Your task to perform on an android device: Open Android settings Image 0: 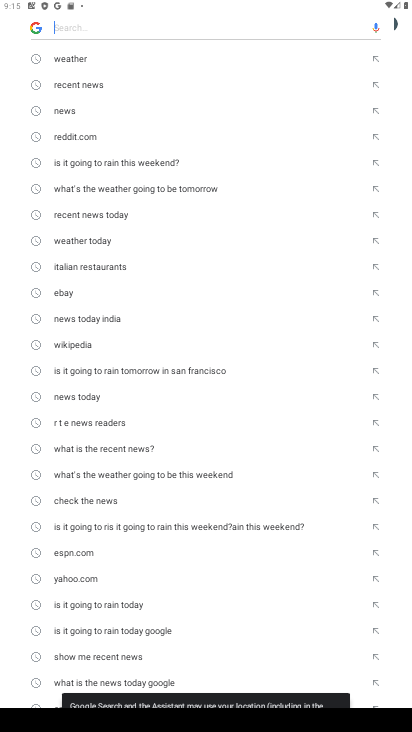
Step 0: press home button
Your task to perform on an android device: Open Android settings Image 1: 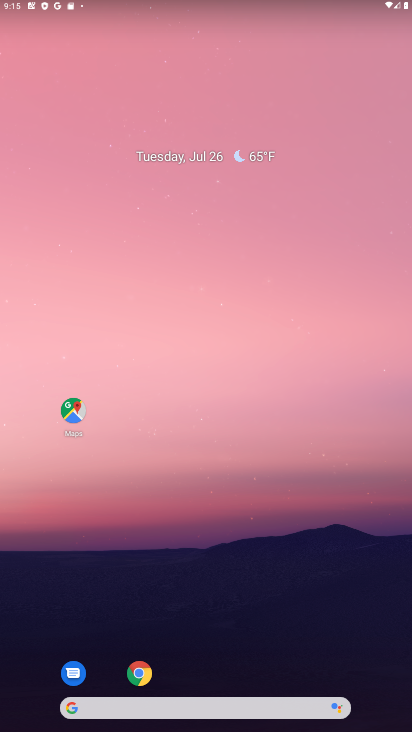
Step 1: drag from (384, 688) to (352, 159)
Your task to perform on an android device: Open Android settings Image 2: 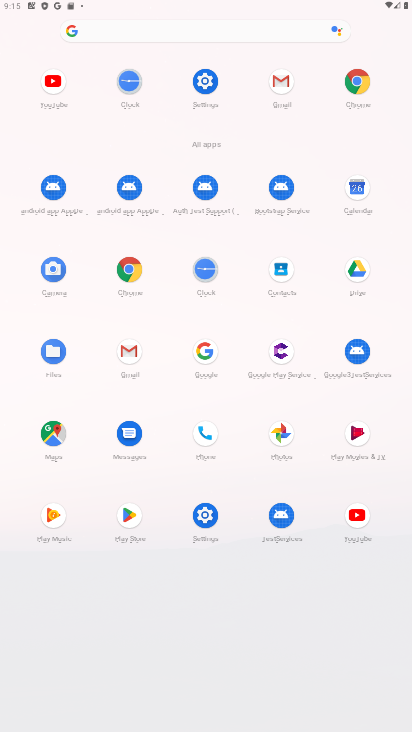
Step 2: click (203, 515)
Your task to perform on an android device: Open Android settings Image 3: 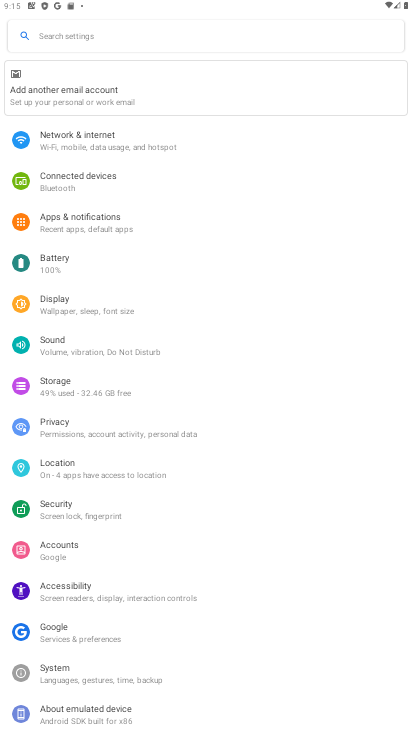
Step 3: drag from (254, 675) to (263, 401)
Your task to perform on an android device: Open Android settings Image 4: 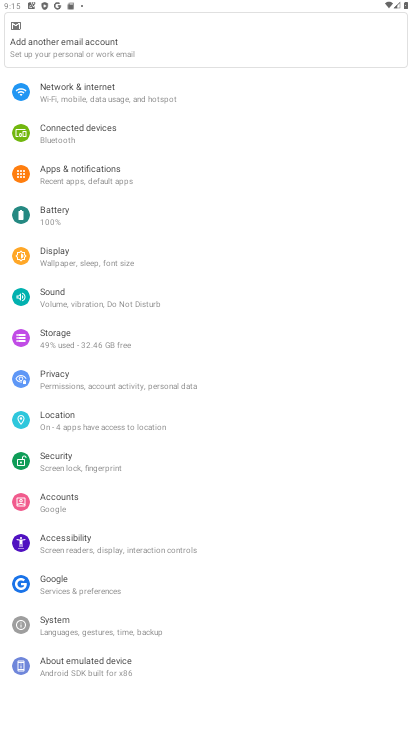
Step 4: click (64, 660)
Your task to perform on an android device: Open Android settings Image 5: 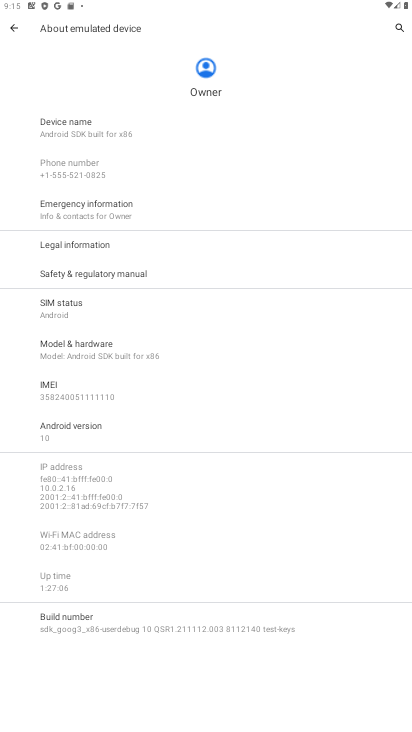
Step 5: task complete